Your task to perform on an android device: Open Amazon Image 0: 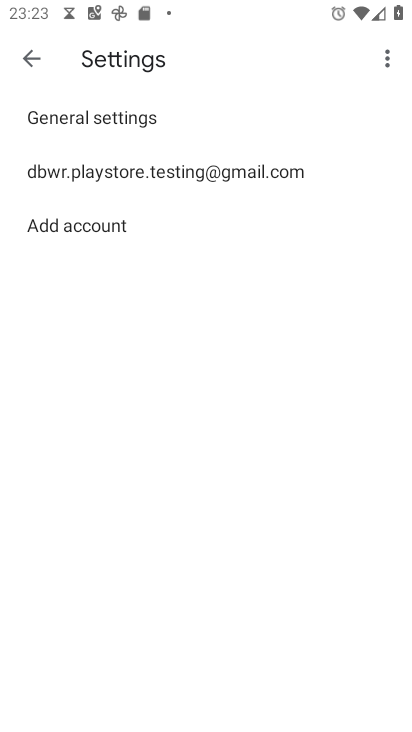
Step 0: press home button
Your task to perform on an android device: Open Amazon Image 1: 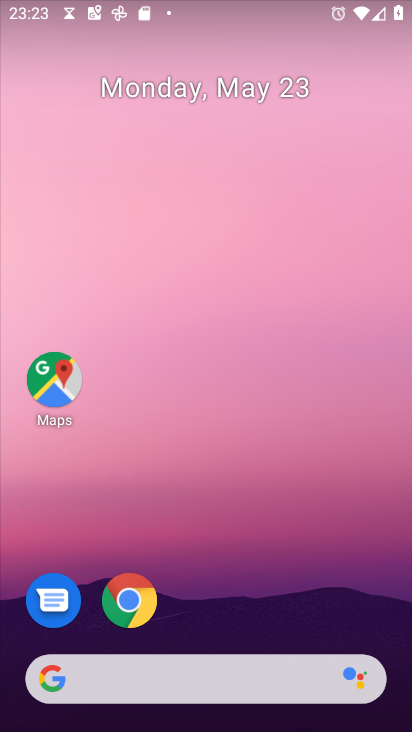
Step 1: click (130, 604)
Your task to perform on an android device: Open Amazon Image 2: 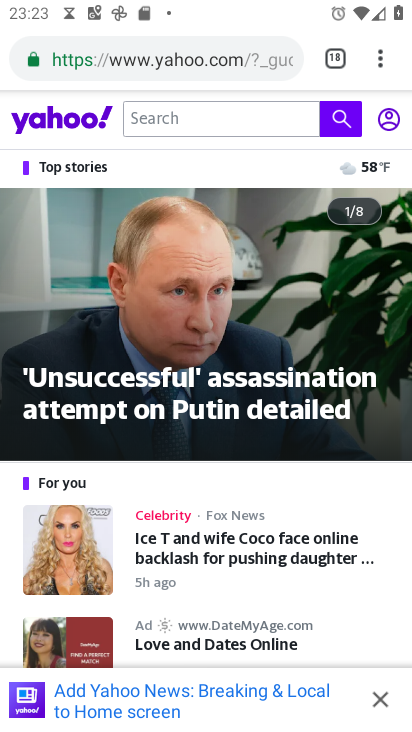
Step 2: click (381, 61)
Your task to perform on an android device: Open Amazon Image 3: 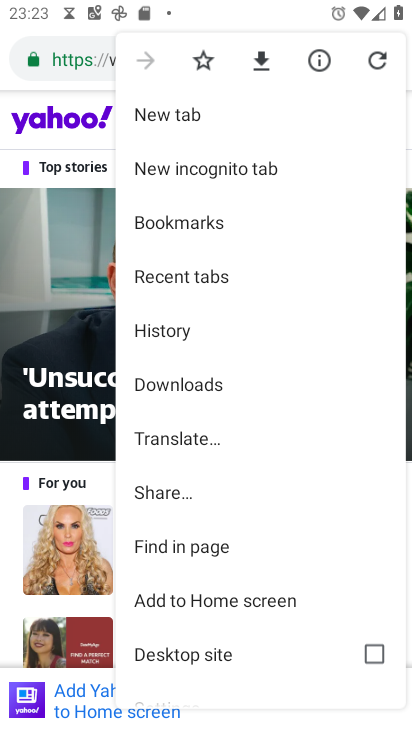
Step 3: click (175, 113)
Your task to perform on an android device: Open Amazon Image 4: 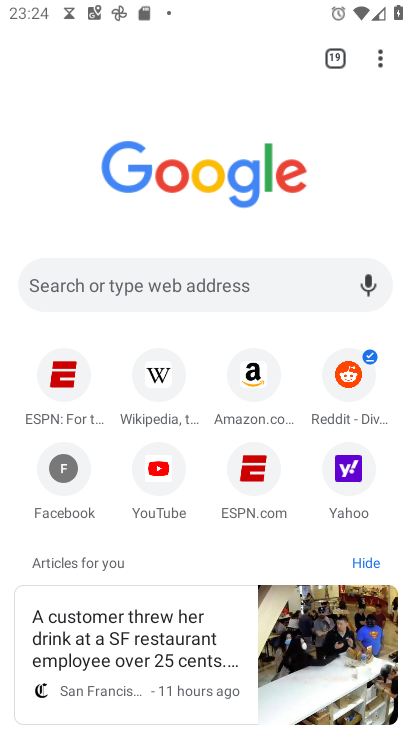
Step 4: click (258, 386)
Your task to perform on an android device: Open Amazon Image 5: 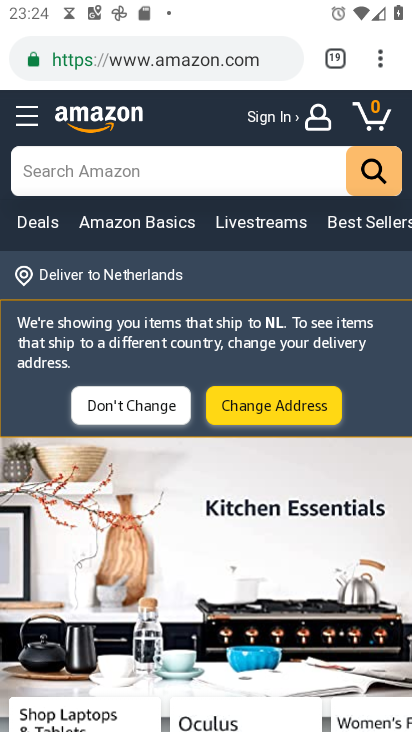
Step 5: task complete